Your task to perform on an android device: Is it going to rain tomorrow? Image 0: 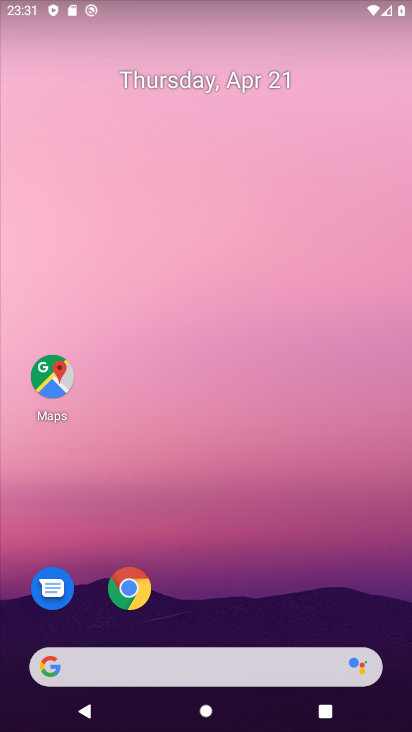
Step 0: click (216, 670)
Your task to perform on an android device: Is it going to rain tomorrow? Image 1: 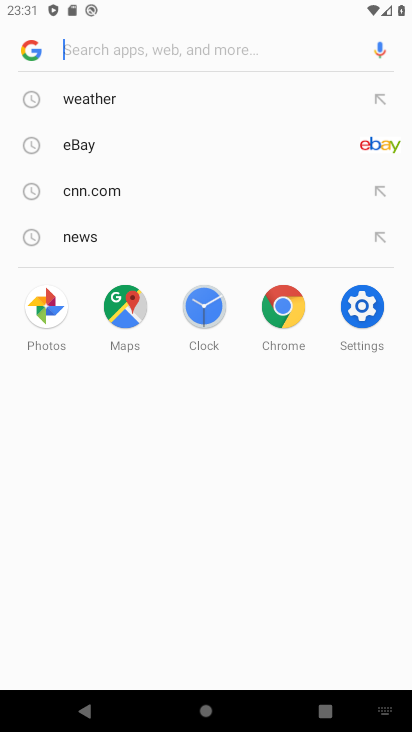
Step 1: type "Is it going to rain tomorrow?"
Your task to perform on an android device: Is it going to rain tomorrow? Image 2: 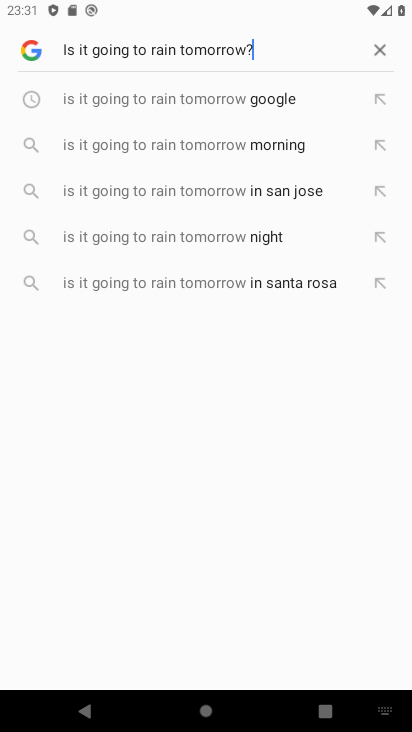
Step 2: click (203, 110)
Your task to perform on an android device: Is it going to rain tomorrow? Image 3: 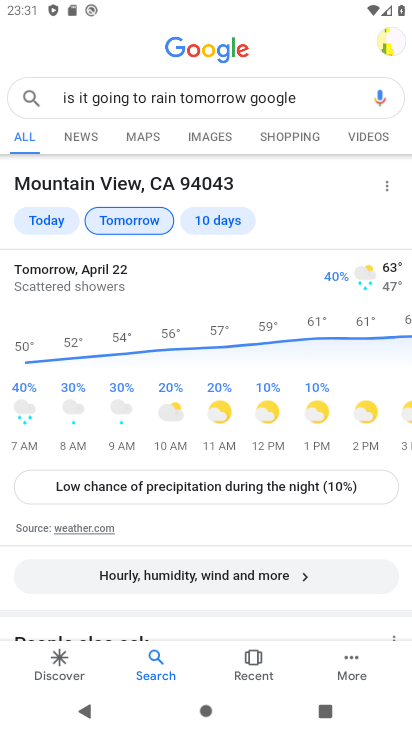
Step 3: task complete